Your task to perform on an android device: Go to settings Image 0: 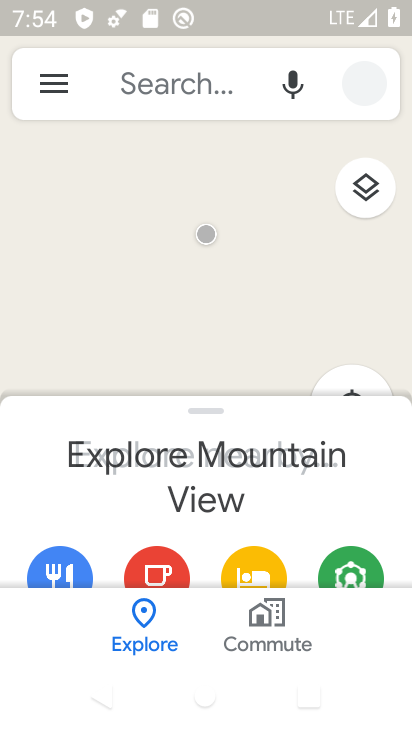
Step 0: press home button
Your task to perform on an android device: Go to settings Image 1: 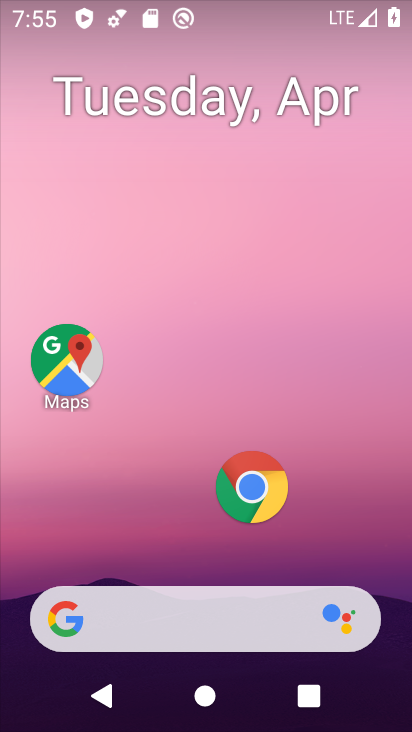
Step 1: drag from (260, 710) to (209, 19)
Your task to perform on an android device: Go to settings Image 2: 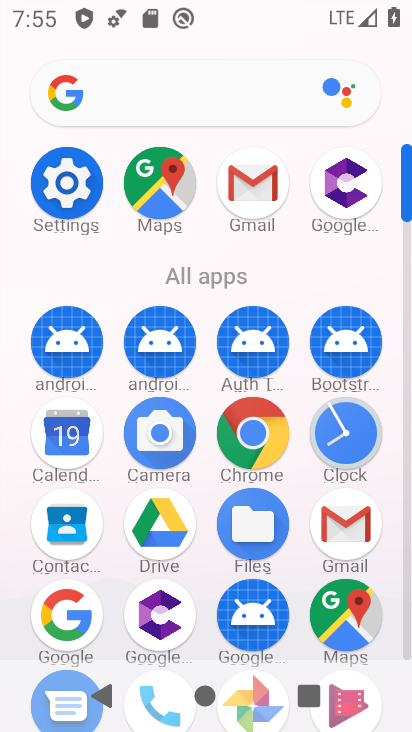
Step 2: click (67, 169)
Your task to perform on an android device: Go to settings Image 3: 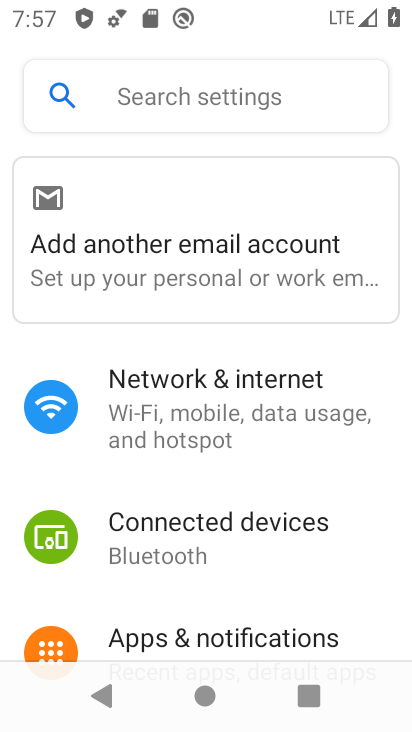
Step 3: task complete